Your task to perform on an android device: turn off sleep mode Image 0: 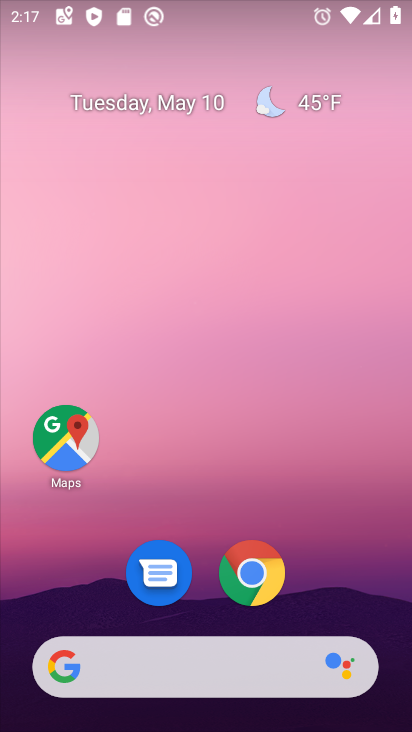
Step 0: drag from (182, 672) to (201, 1)
Your task to perform on an android device: turn off sleep mode Image 1: 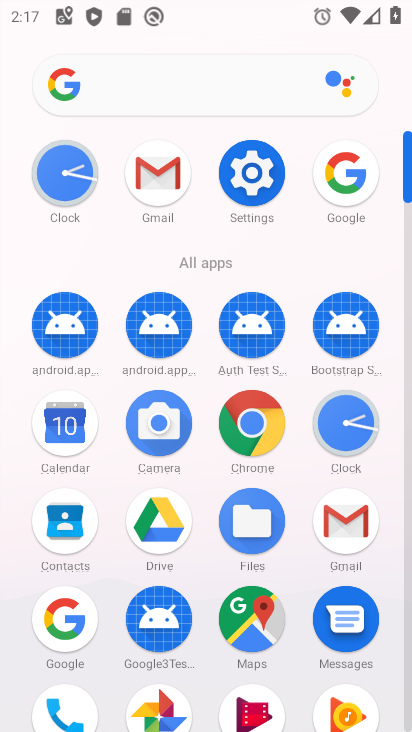
Step 1: click (251, 184)
Your task to perform on an android device: turn off sleep mode Image 2: 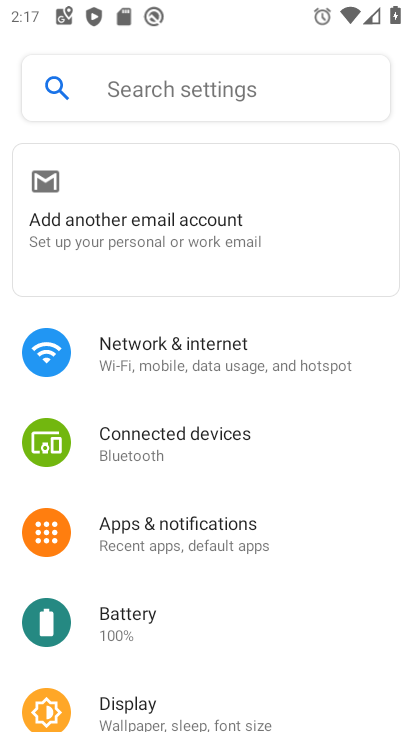
Step 2: drag from (261, 663) to (247, 235)
Your task to perform on an android device: turn off sleep mode Image 3: 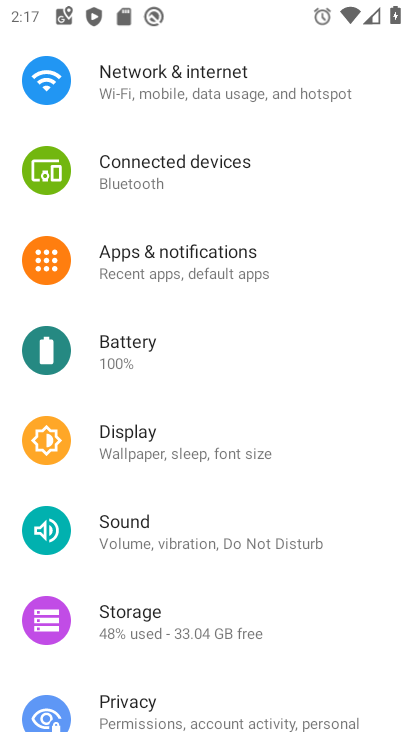
Step 3: click (253, 448)
Your task to perform on an android device: turn off sleep mode Image 4: 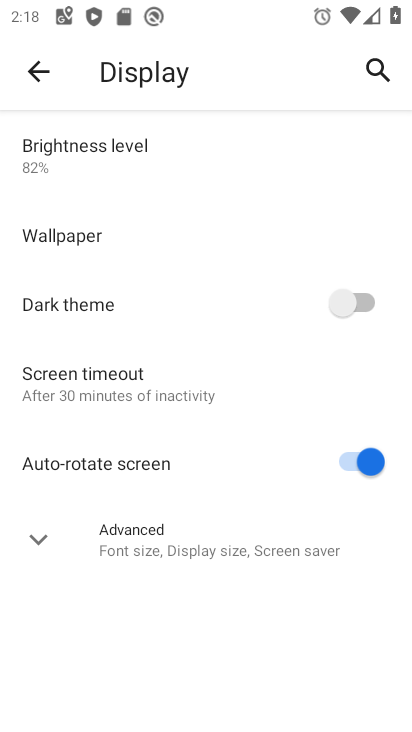
Step 4: task complete